Your task to perform on an android device: change notification settings in the gmail app Image 0: 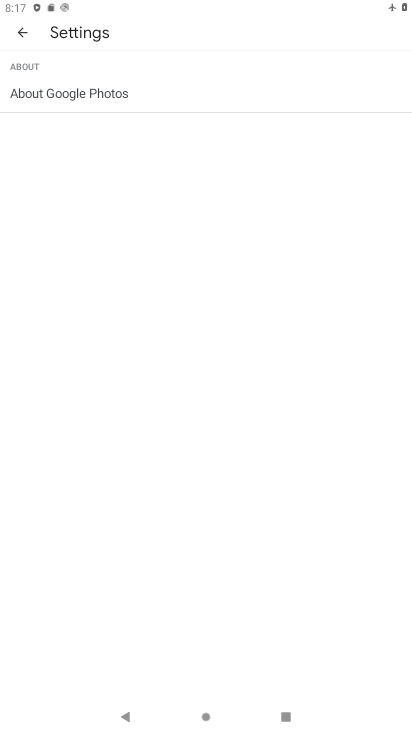
Step 0: click (17, 23)
Your task to perform on an android device: change notification settings in the gmail app Image 1: 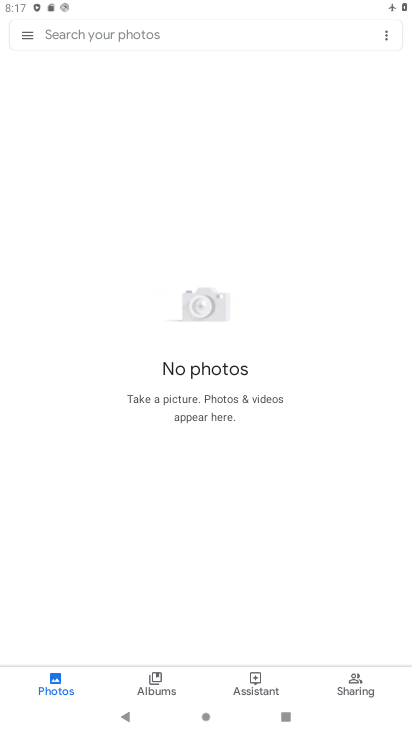
Step 1: press back button
Your task to perform on an android device: change notification settings in the gmail app Image 2: 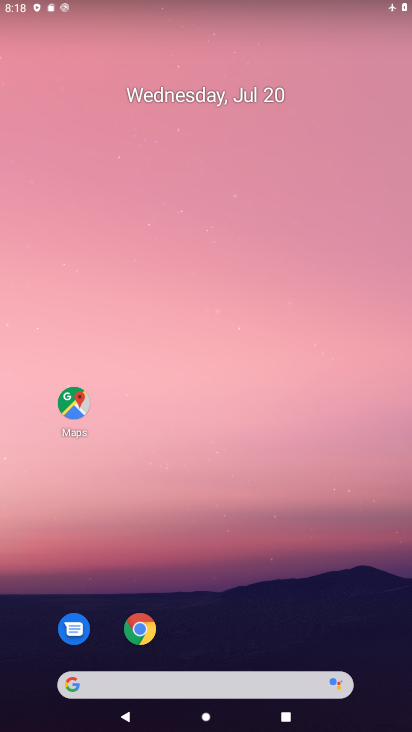
Step 2: drag from (227, 689) to (161, 221)
Your task to perform on an android device: change notification settings in the gmail app Image 3: 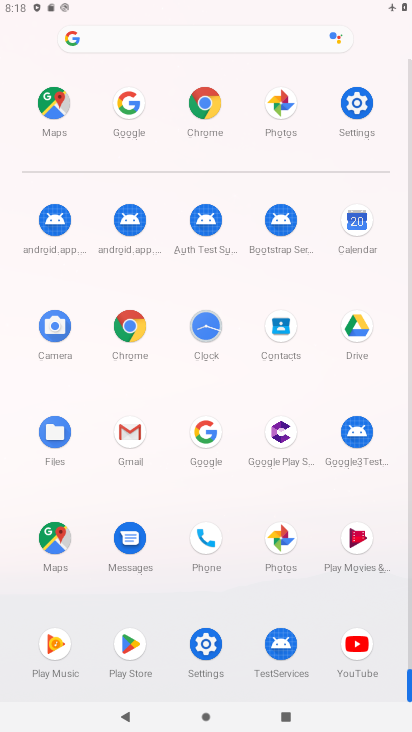
Step 3: click (125, 429)
Your task to perform on an android device: change notification settings in the gmail app Image 4: 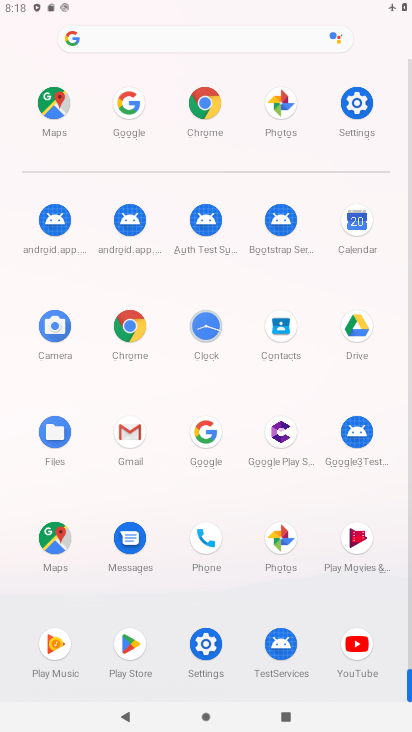
Step 4: click (136, 438)
Your task to perform on an android device: change notification settings in the gmail app Image 5: 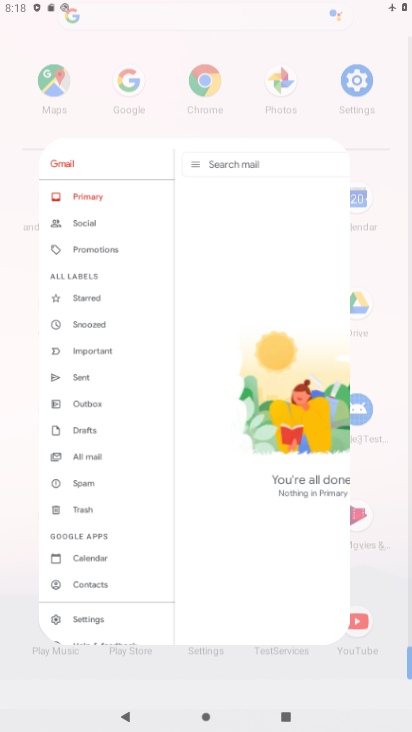
Step 5: click (142, 434)
Your task to perform on an android device: change notification settings in the gmail app Image 6: 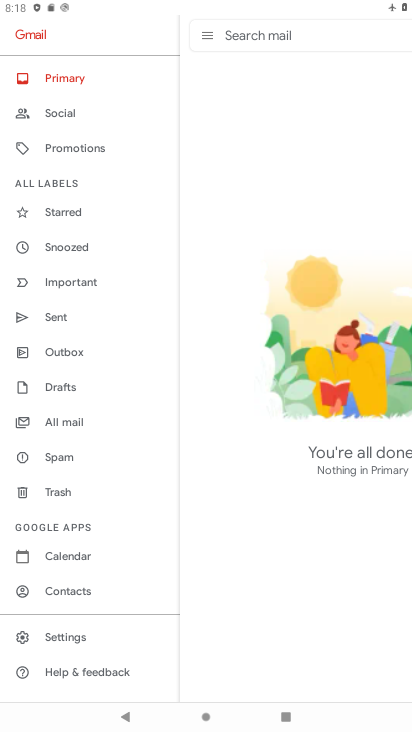
Step 6: click (66, 632)
Your task to perform on an android device: change notification settings in the gmail app Image 7: 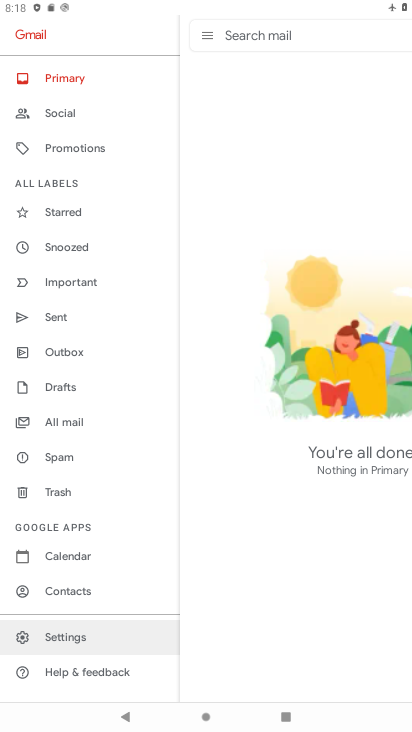
Step 7: click (66, 632)
Your task to perform on an android device: change notification settings in the gmail app Image 8: 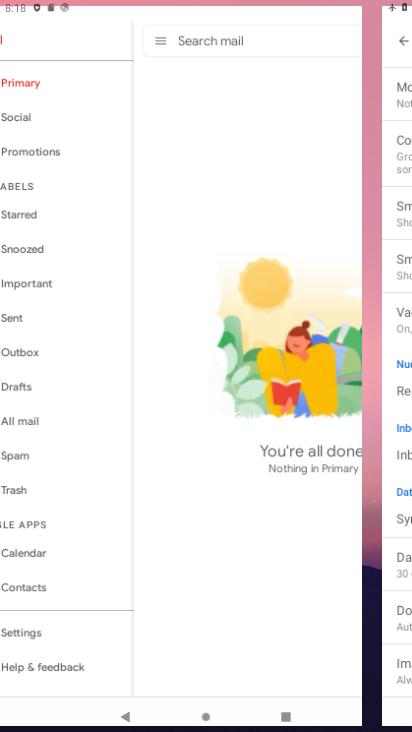
Step 8: click (65, 633)
Your task to perform on an android device: change notification settings in the gmail app Image 9: 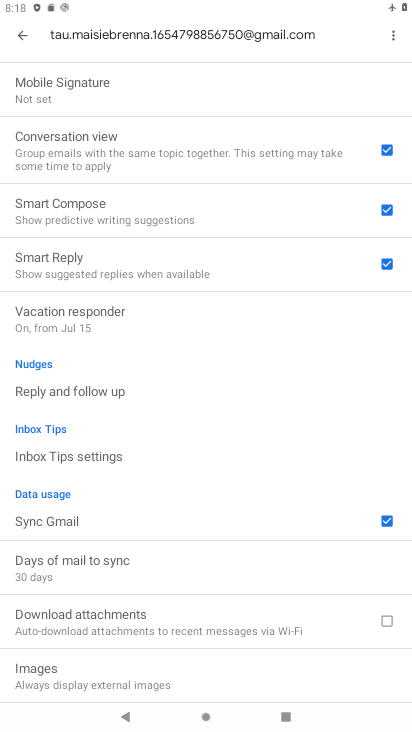
Step 9: drag from (66, 137) to (160, 447)
Your task to perform on an android device: change notification settings in the gmail app Image 10: 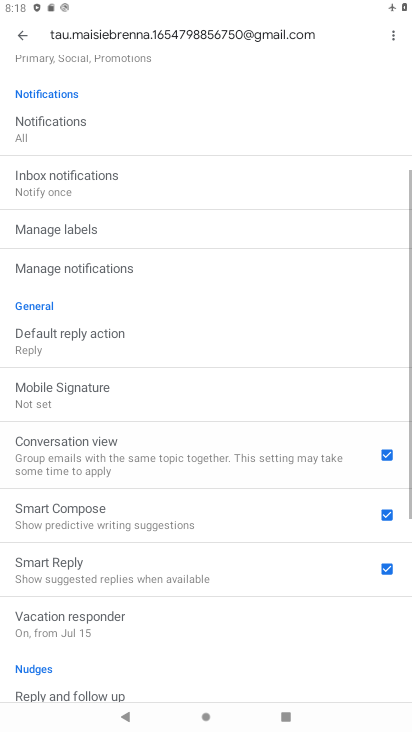
Step 10: drag from (88, 344) to (97, 507)
Your task to perform on an android device: change notification settings in the gmail app Image 11: 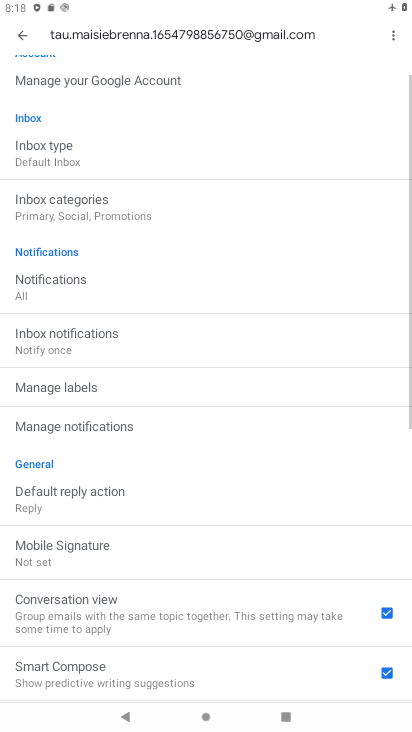
Step 11: click (47, 284)
Your task to perform on an android device: change notification settings in the gmail app Image 12: 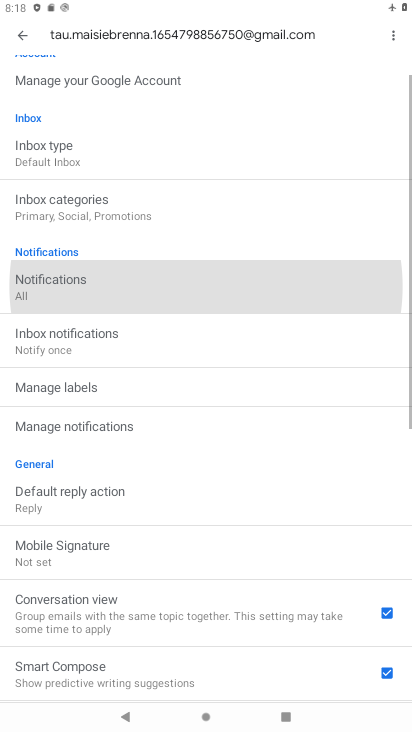
Step 12: click (47, 285)
Your task to perform on an android device: change notification settings in the gmail app Image 13: 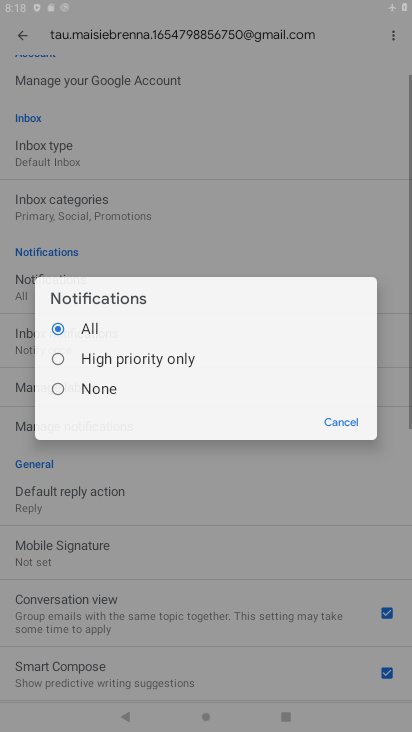
Step 13: click (49, 286)
Your task to perform on an android device: change notification settings in the gmail app Image 14: 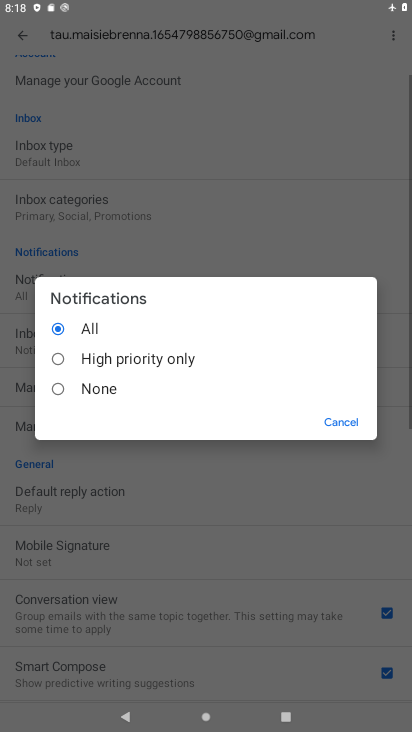
Step 14: click (65, 355)
Your task to perform on an android device: change notification settings in the gmail app Image 15: 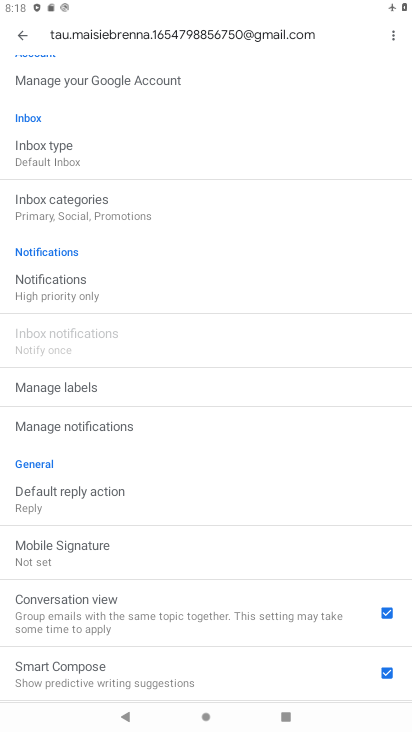
Step 15: task complete